Your task to perform on an android device: Open the phone app and click the voicemail tab. Image 0: 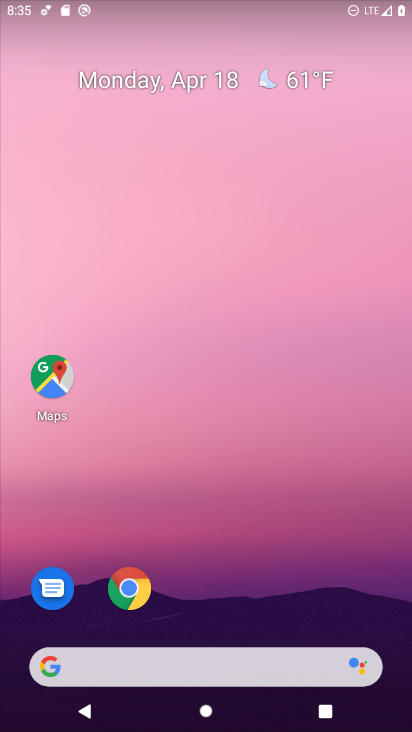
Step 0: drag from (377, 619) to (303, 44)
Your task to perform on an android device: Open the phone app and click the voicemail tab. Image 1: 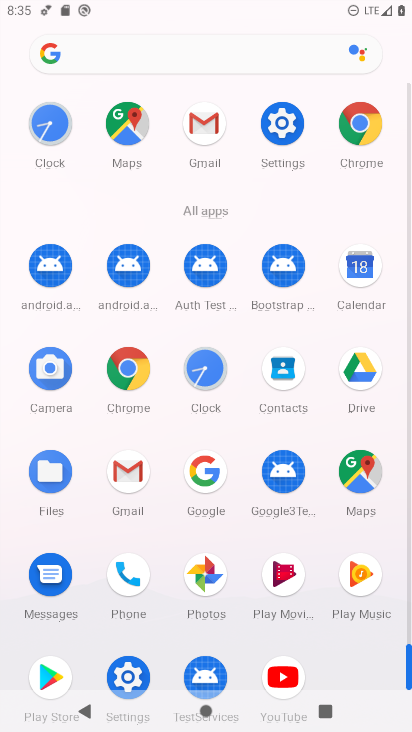
Step 1: click (127, 571)
Your task to perform on an android device: Open the phone app and click the voicemail tab. Image 2: 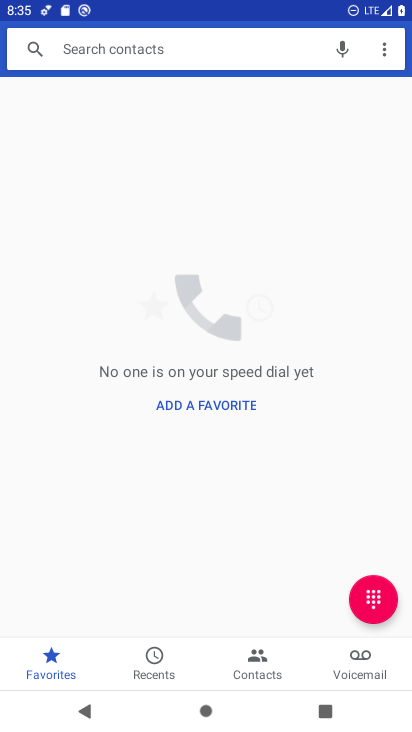
Step 2: click (355, 654)
Your task to perform on an android device: Open the phone app and click the voicemail tab. Image 3: 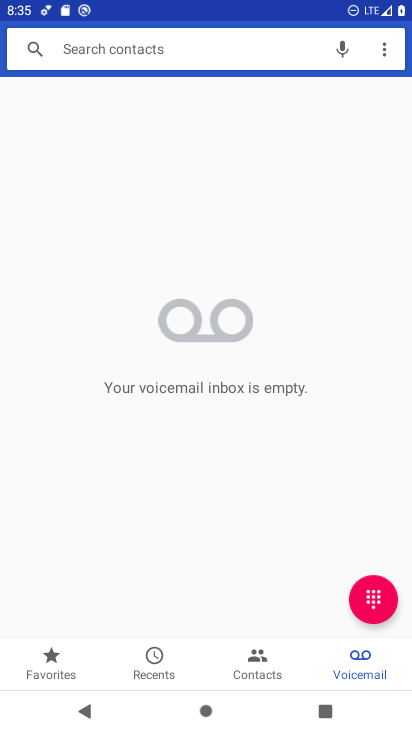
Step 3: task complete